Your task to perform on an android device: Go to Google maps Image 0: 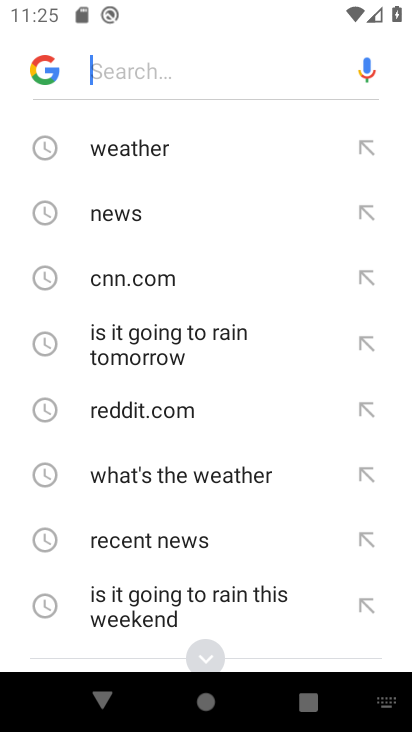
Step 0: press home button
Your task to perform on an android device: Go to Google maps Image 1: 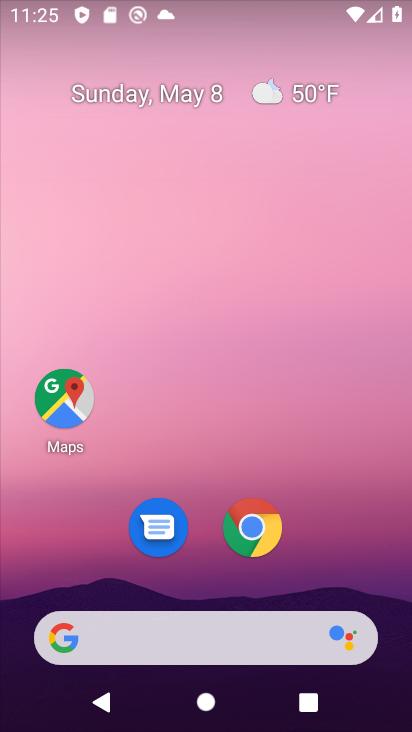
Step 1: drag from (215, 726) to (214, 132)
Your task to perform on an android device: Go to Google maps Image 2: 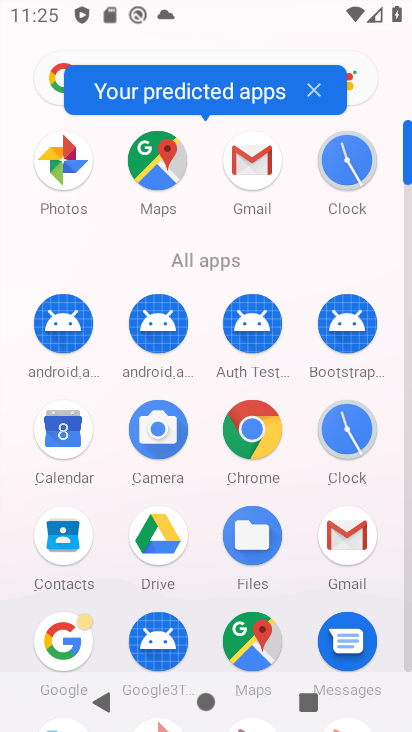
Step 2: click (246, 645)
Your task to perform on an android device: Go to Google maps Image 3: 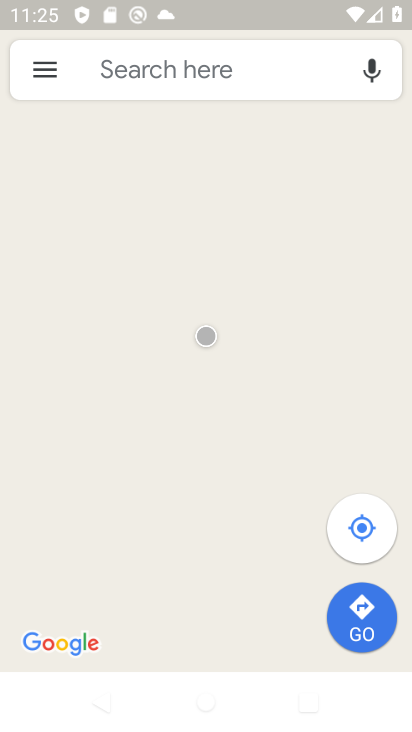
Step 3: task complete